Your task to perform on an android device: Search for pizza restaurants on Maps Image 0: 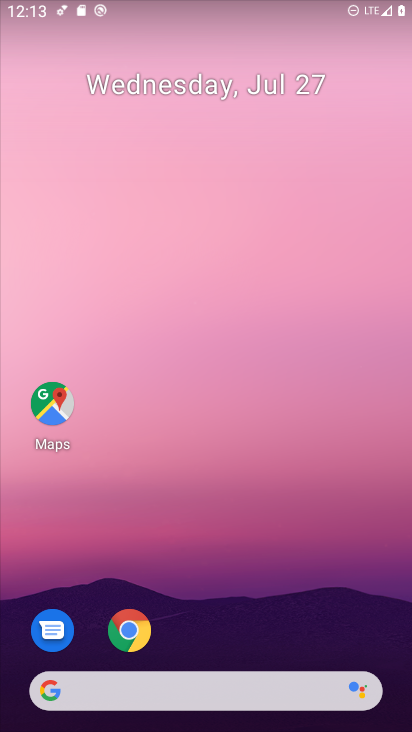
Step 0: click (55, 403)
Your task to perform on an android device: Search for pizza restaurants on Maps Image 1: 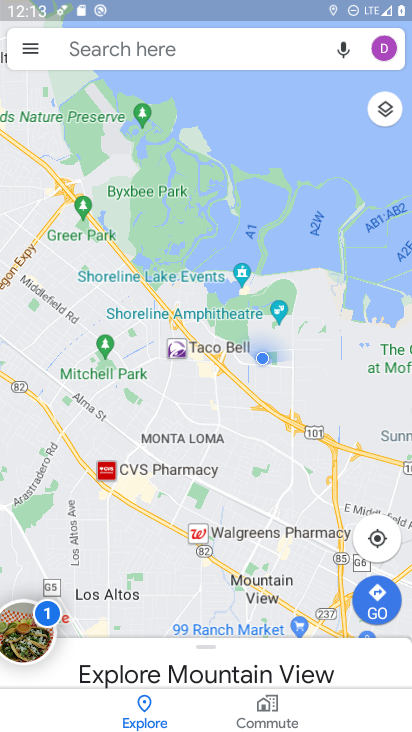
Step 1: click (186, 41)
Your task to perform on an android device: Search for pizza restaurants on Maps Image 2: 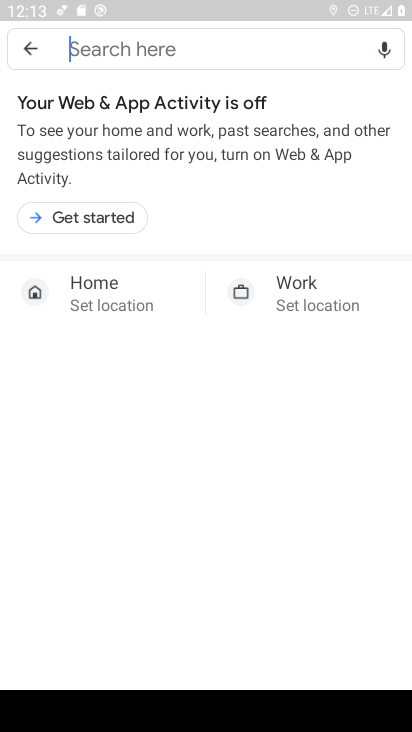
Step 2: type "pizza restaurants"
Your task to perform on an android device: Search for pizza restaurants on Maps Image 3: 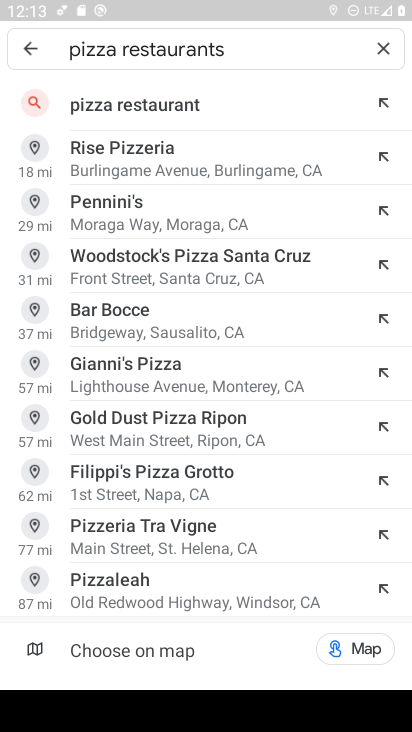
Step 3: click (139, 82)
Your task to perform on an android device: Search for pizza restaurants on Maps Image 4: 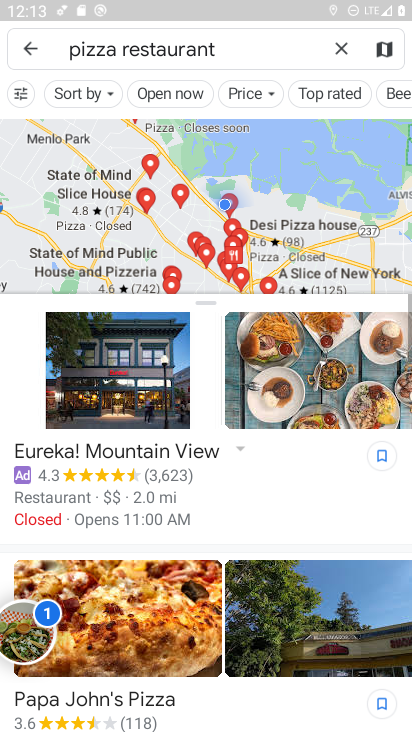
Step 4: task complete